Your task to perform on an android device: Open Google Chrome and open the bookmarks view Image 0: 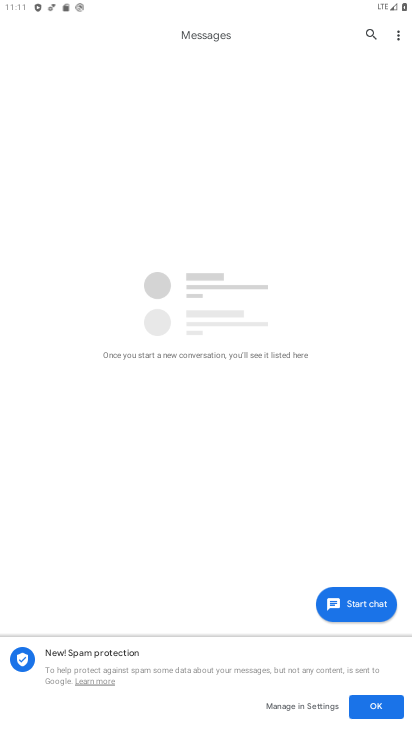
Step 0: press home button
Your task to perform on an android device: Open Google Chrome and open the bookmarks view Image 1: 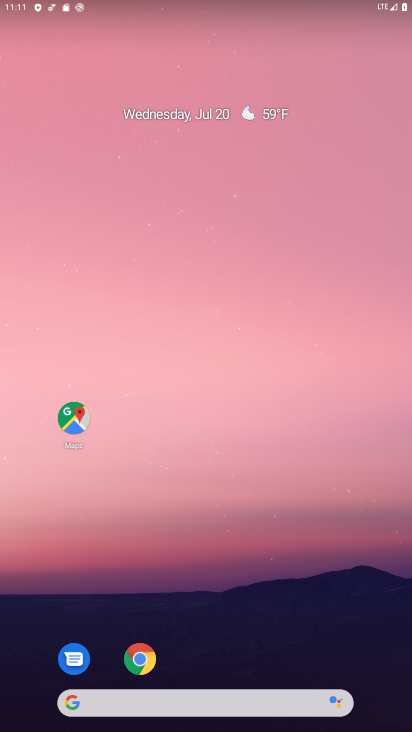
Step 1: click (139, 659)
Your task to perform on an android device: Open Google Chrome and open the bookmarks view Image 2: 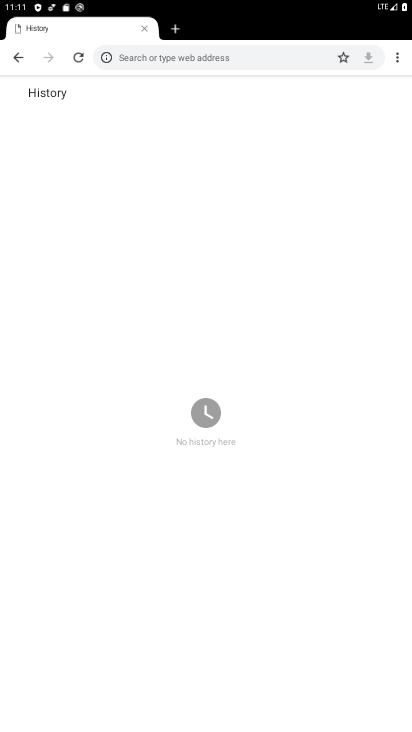
Step 2: click (397, 61)
Your task to perform on an android device: Open Google Chrome and open the bookmarks view Image 3: 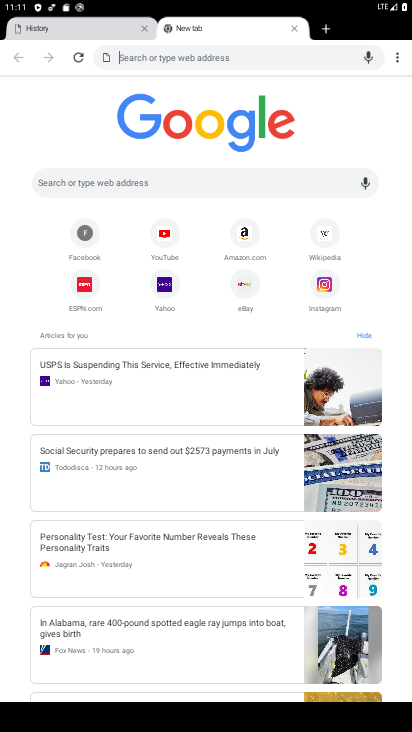
Step 3: click (399, 58)
Your task to perform on an android device: Open Google Chrome and open the bookmarks view Image 4: 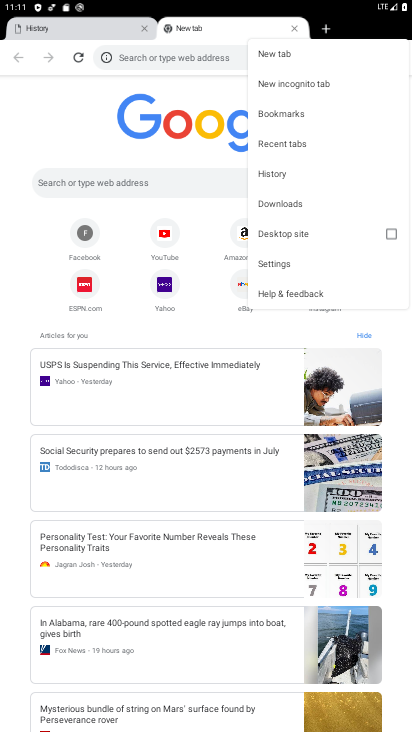
Step 4: click (293, 115)
Your task to perform on an android device: Open Google Chrome and open the bookmarks view Image 5: 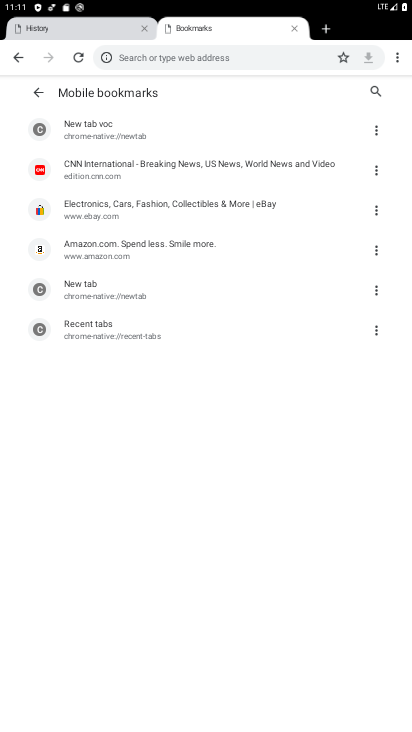
Step 5: task complete